Your task to perform on an android device: turn on bluetooth scan Image 0: 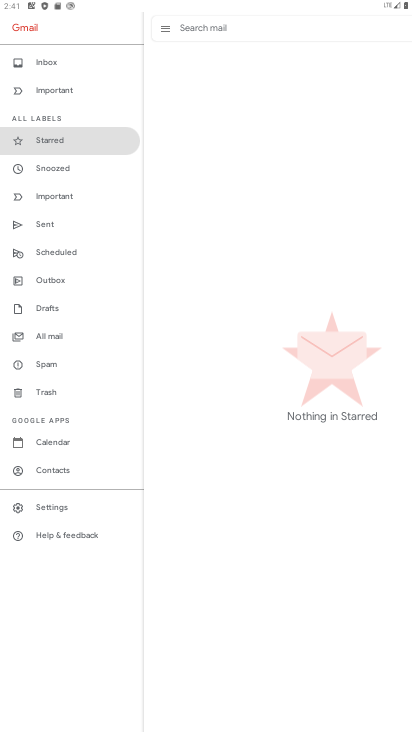
Step 0: press home button
Your task to perform on an android device: turn on bluetooth scan Image 1: 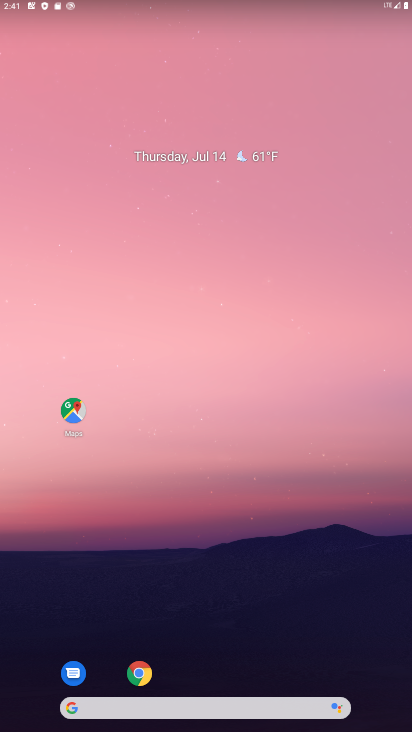
Step 1: drag from (276, 307) to (324, 42)
Your task to perform on an android device: turn on bluetooth scan Image 2: 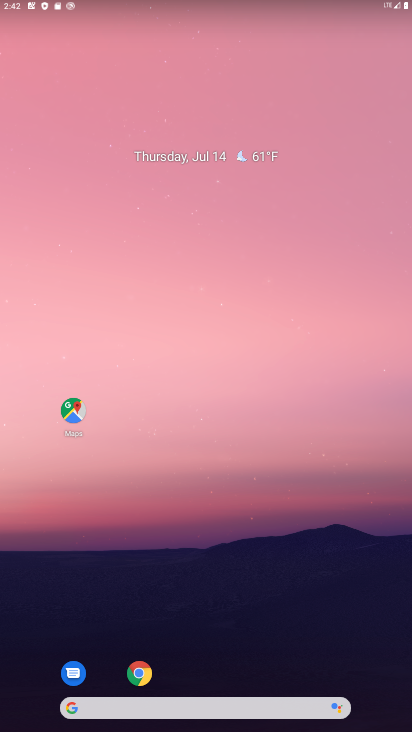
Step 2: drag from (204, 662) to (139, 2)
Your task to perform on an android device: turn on bluetooth scan Image 3: 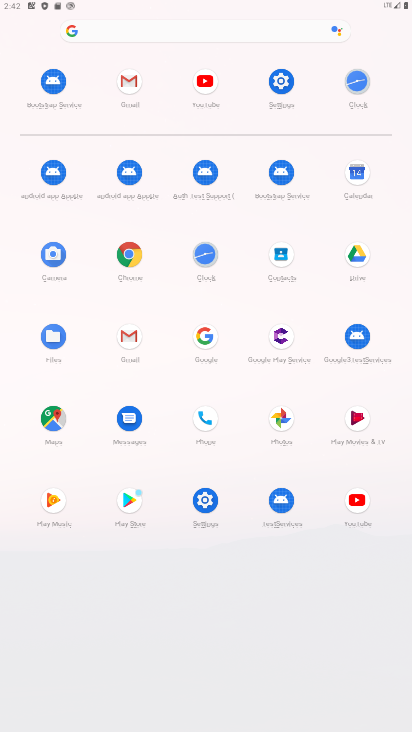
Step 3: click (273, 81)
Your task to perform on an android device: turn on bluetooth scan Image 4: 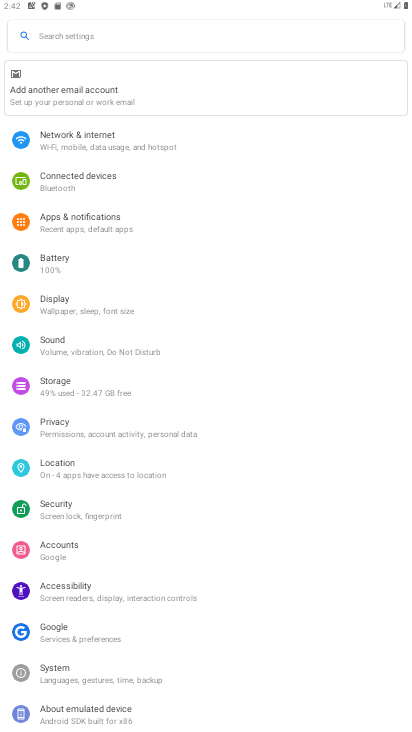
Step 4: click (64, 472)
Your task to perform on an android device: turn on bluetooth scan Image 5: 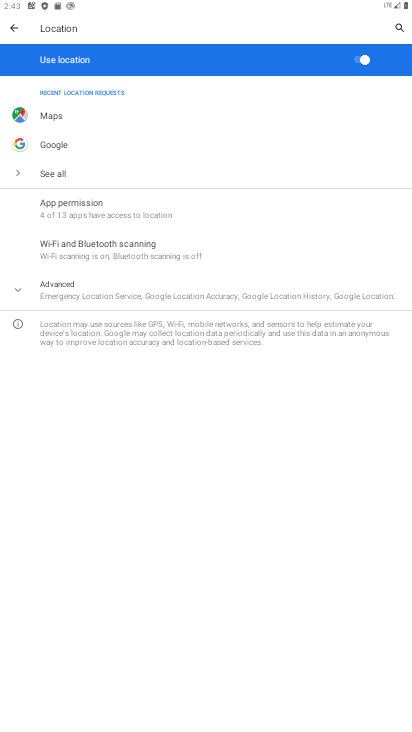
Step 5: click (90, 256)
Your task to perform on an android device: turn on bluetooth scan Image 6: 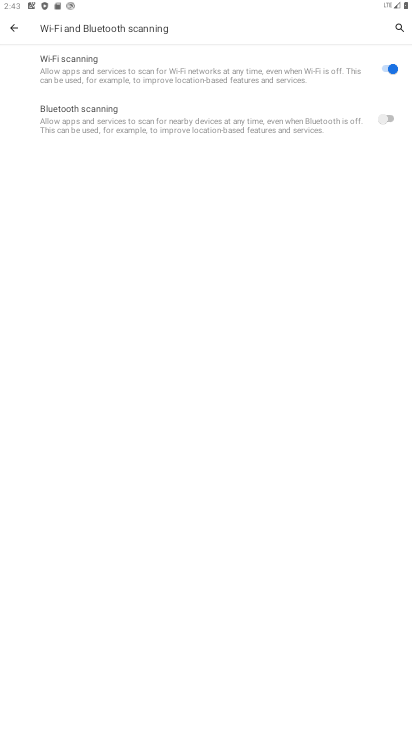
Step 6: click (390, 116)
Your task to perform on an android device: turn on bluetooth scan Image 7: 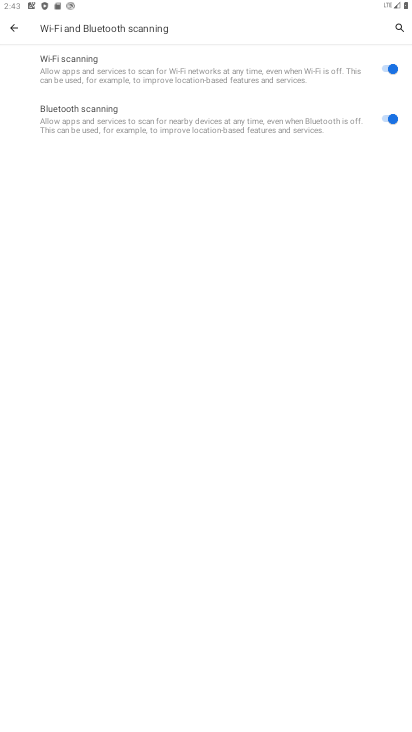
Step 7: task complete